Your task to perform on an android device: Go to battery settings Image 0: 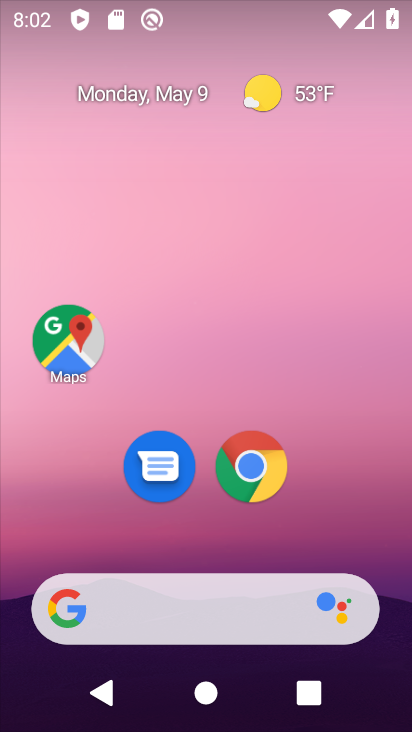
Step 0: drag from (329, 527) to (245, 185)
Your task to perform on an android device: Go to battery settings Image 1: 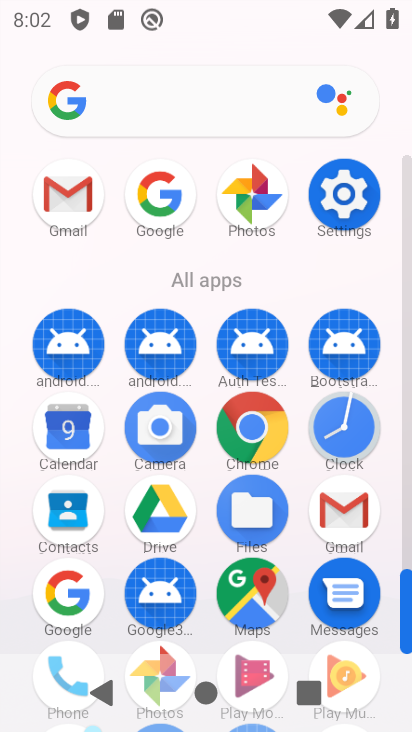
Step 1: click (344, 195)
Your task to perform on an android device: Go to battery settings Image 2: 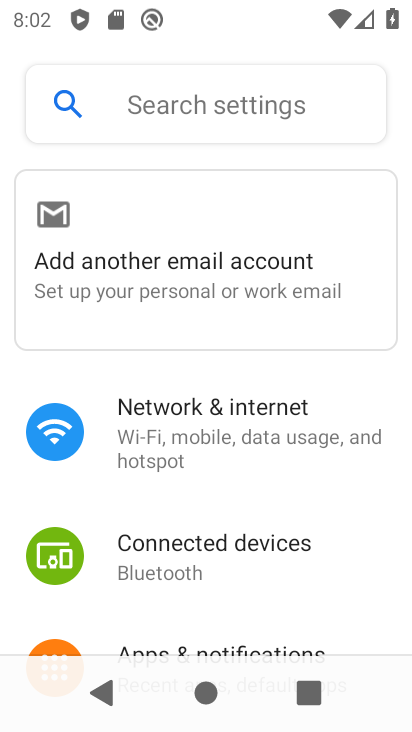
Step 2: drag from (178, 576) to (287, 442)
Your task to perform on an android device: Go to battery settings Image 3: 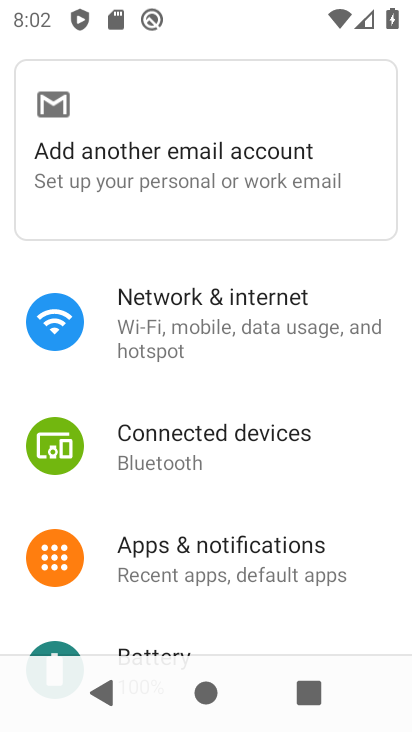
Step 3: drag from (180, 623) to (291, 452)
Your task to perform on an android device: Go to battery settings Image 4: 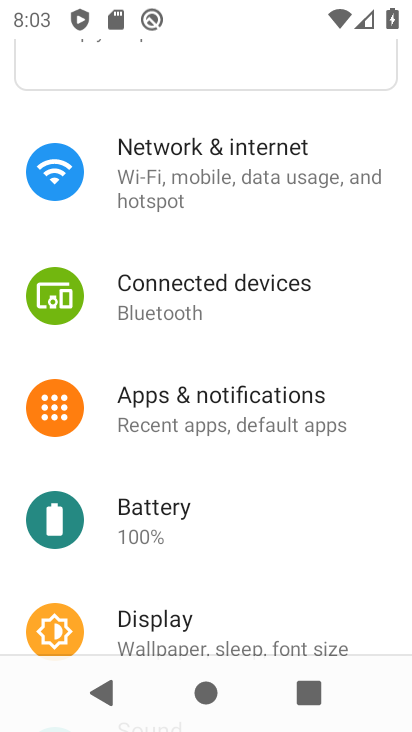
Step 4: click (168, 512)
Your task to perform on an android device: Go to battery settings Image 5: 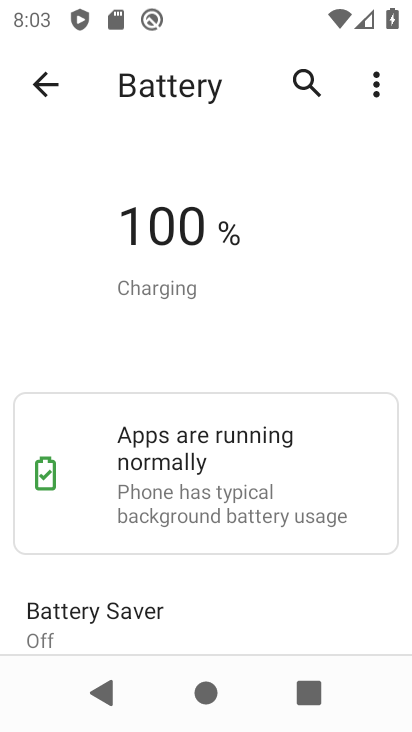
Step 5: task complete